Your task to perform on an android device: Search for Italian restaurants on Maps Image 0: 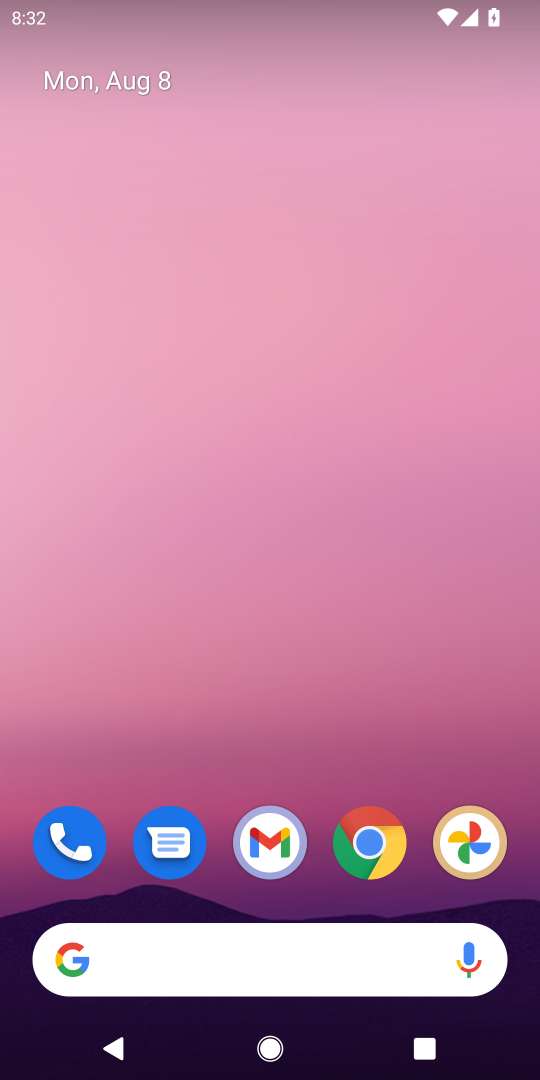
Step 0: drag from (282, 769) to (278, 123)
Your task to perform on an android device: Search for Italian restaurants on Maps Image 1: 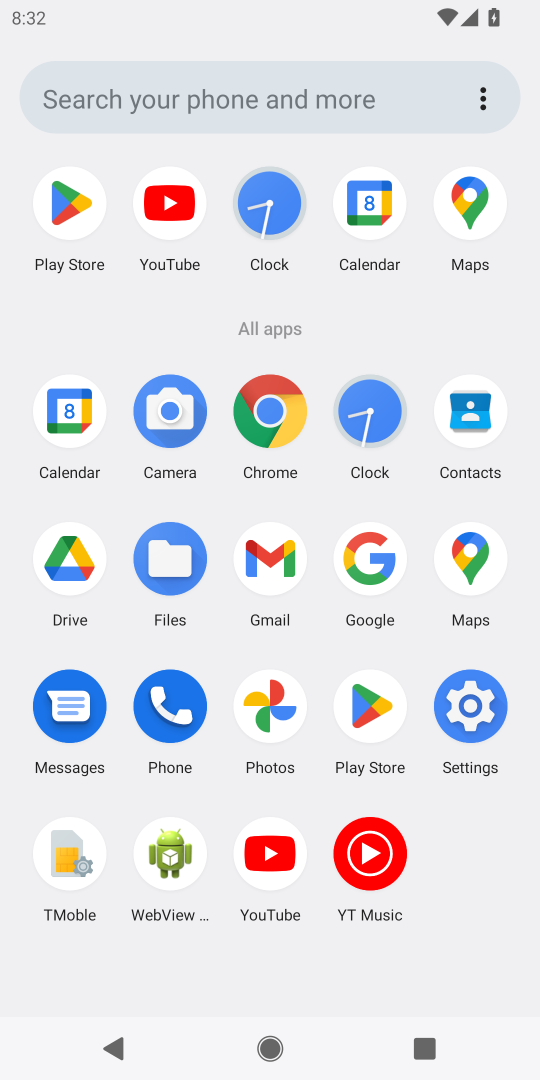
Step 1: click (456, 564)
Your task to perform on an android device: Search for Italian restaurants on Maps Image 2: 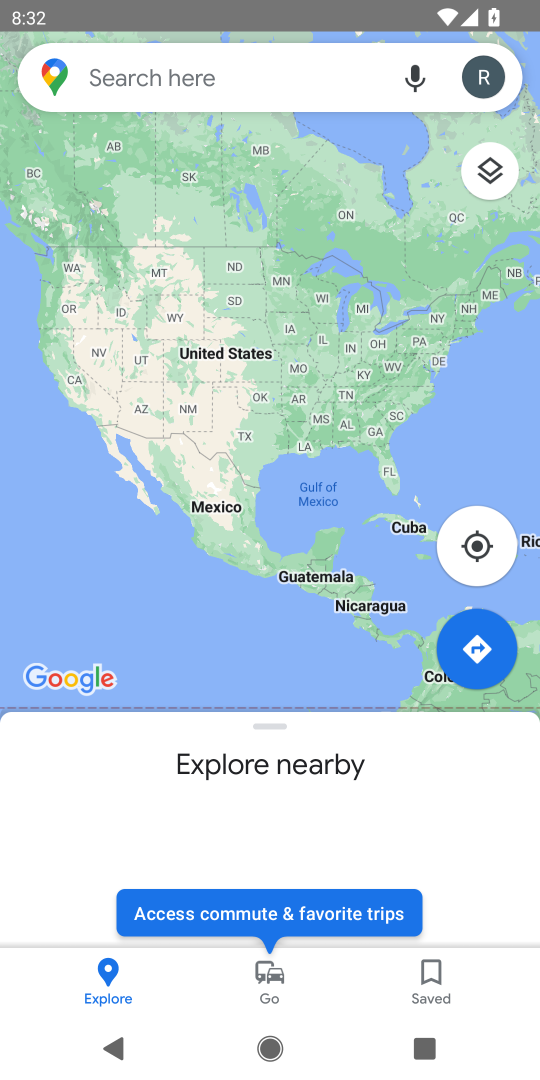
Step 2: click (235, 81)
Your task to perform on an android device: Search for Italian restaurants on Maps Image 3: 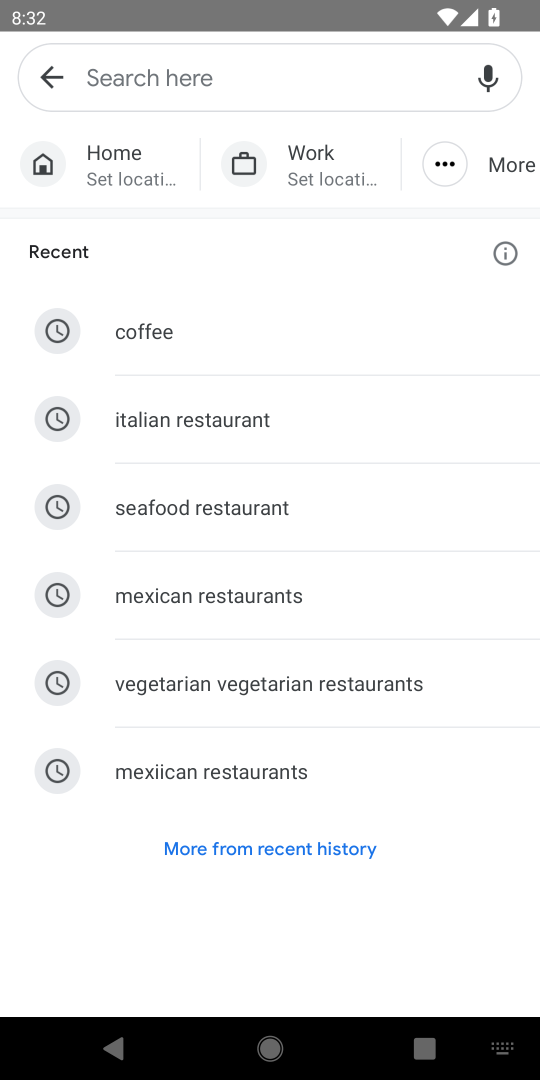
Step 3: type "italian restaurants"
Your task to perform on an android device: Search for Italian restaurants on Maps Image 4: 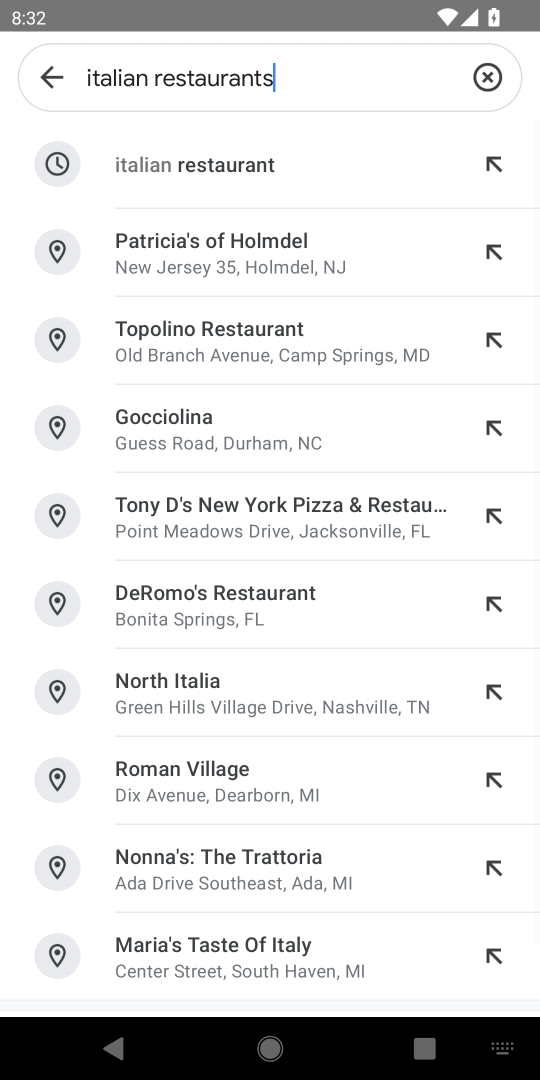
Step 4: click (247, 160)
Your task to perform on an android device: Search for Italian restaurants on Maps Image 5: 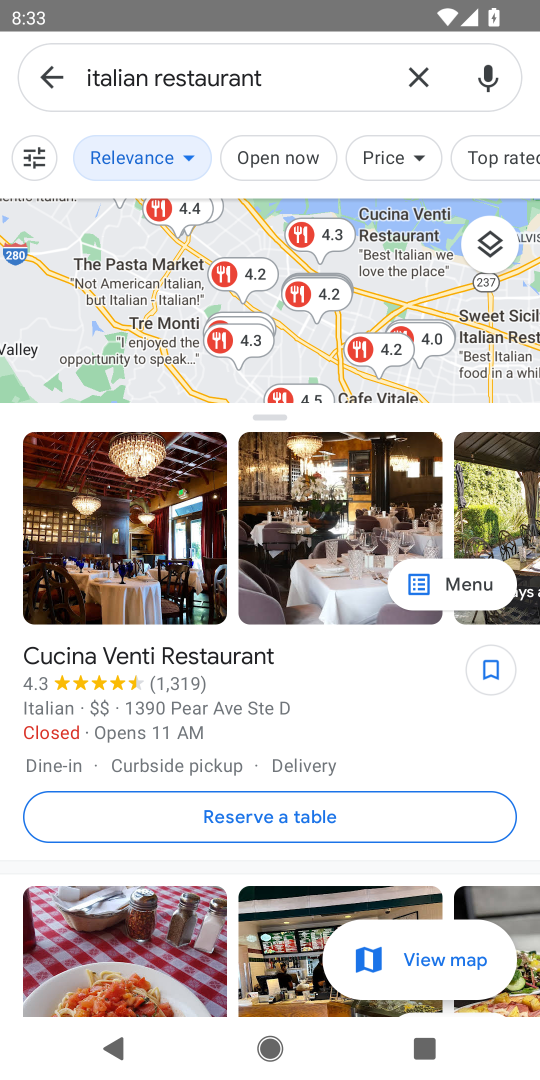
Step 5: task complete